Your task to perform on an android device: What's on my calendar tomorrow? Image 0: 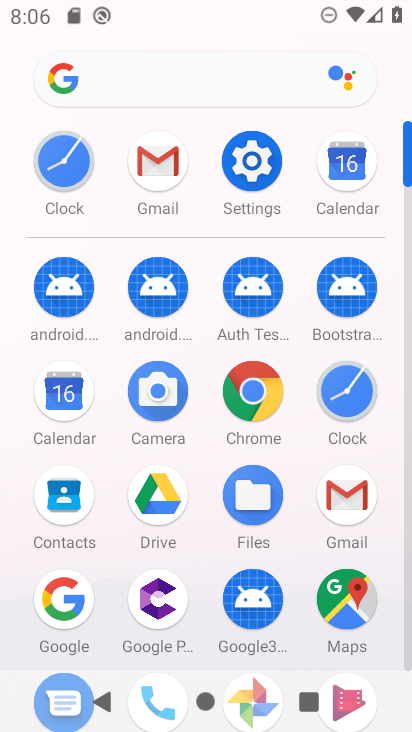
Step 0: click (349, 170)
Your task to perform on an android device: What's on my calendar tomorrow? Image 1: 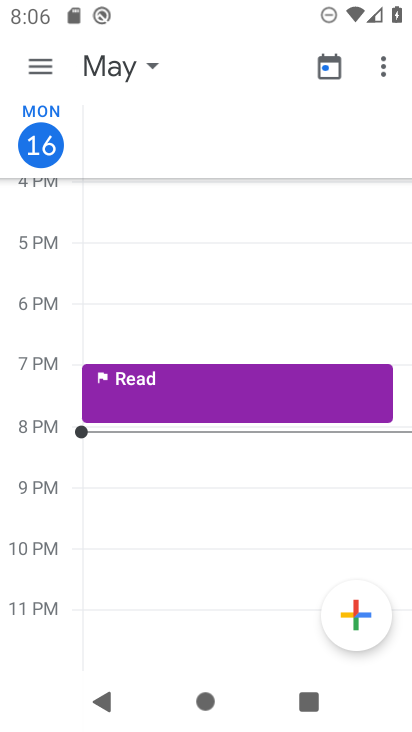
Step 1: click (40, 52)
Your task to perform on an android device: What's on my calendar tomorrow? Image 2: 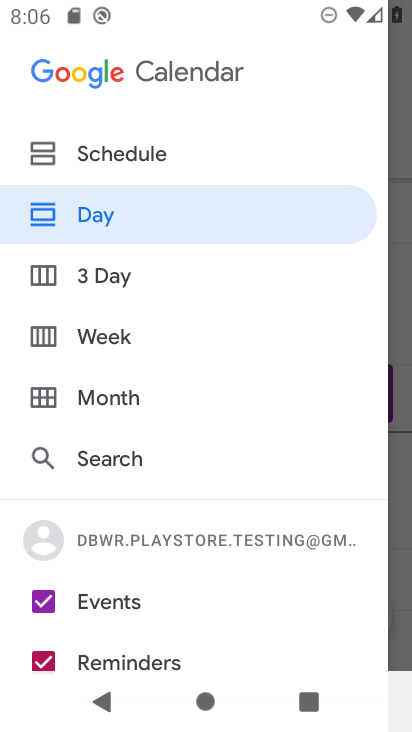
Step 2: click (98, 146)
Your task to perform on an android device: What's on my calendar tomorrow? Image 3: 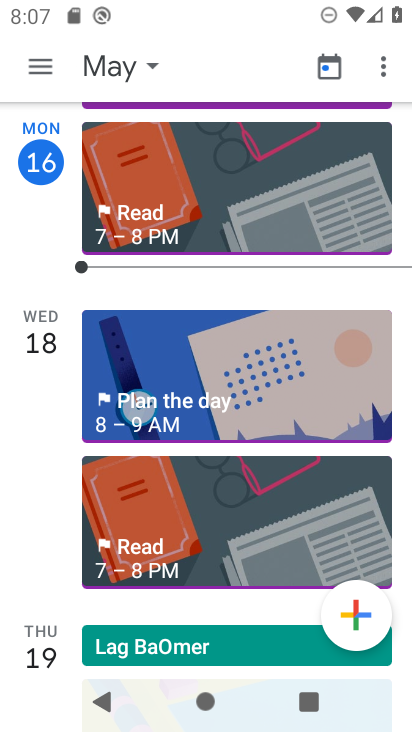
Step 3: task complete